Your task to perform on an android device: Open location settings Image 0: 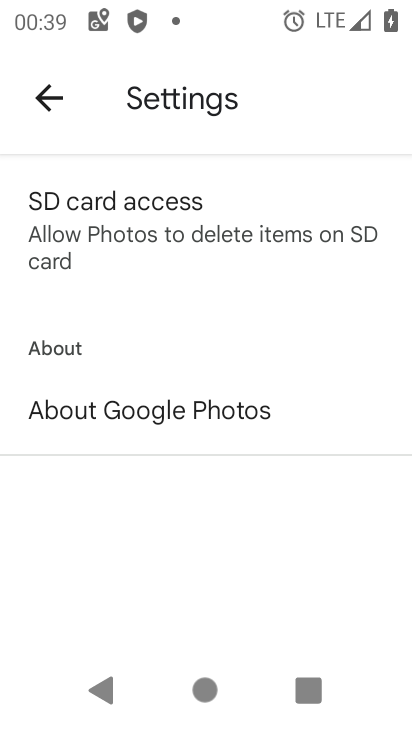
Step 0: press home button
Your task to perform on an android device: Open location settings Image 1: 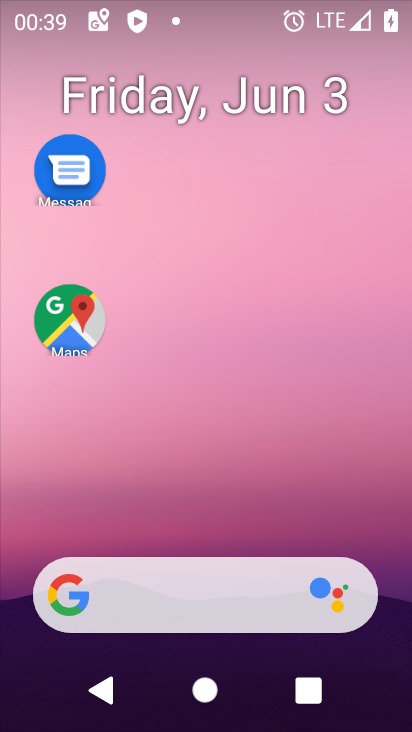
Step 1: drag from (227, 550) to (213, 170)
Your task to perform on an android device: Open location settings Image 2: 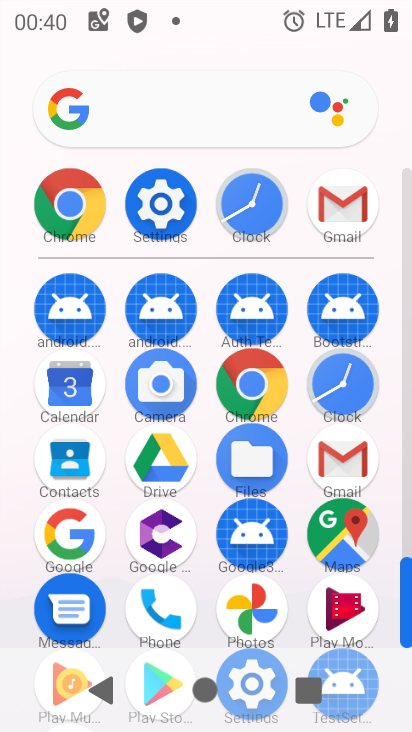
Step 2: click (185, 242)
Your task to perform on an android device: Open location settings Image 3: 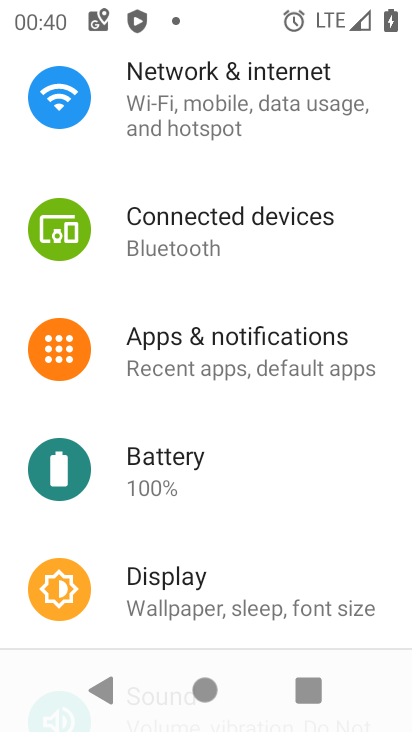
Step 3: drag from (326, 580) to (398, 155)
Your task to perform on an android device: Open location settings Image 4: 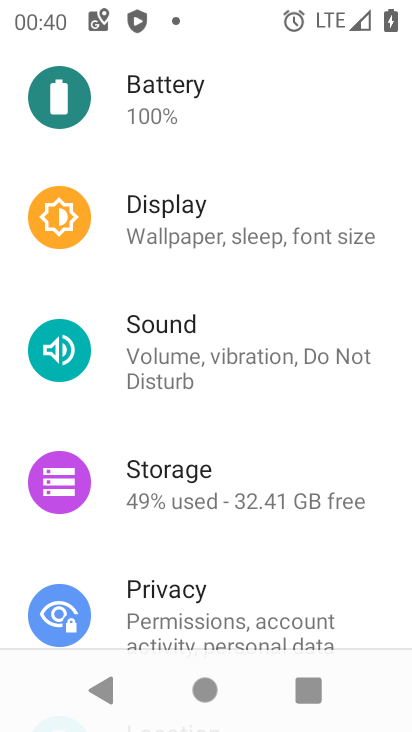
Step 4: drag from (256, 540) to (297, 291)
Your task to perform on an android device: Open location settings Image 5: 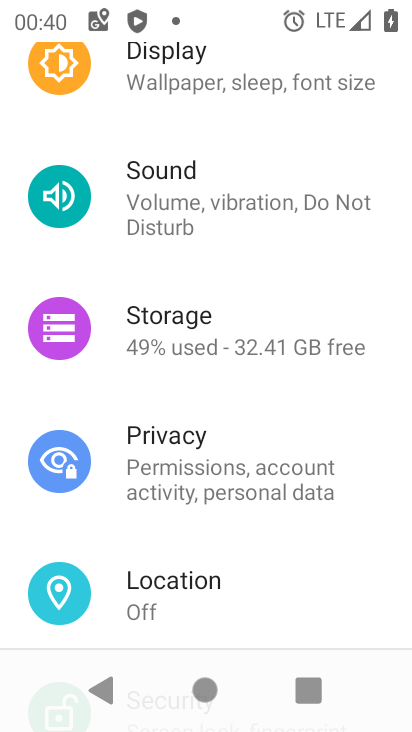
Step 5: click (212, 573)
Your task to perform on an android device: Open location settings Image 6: 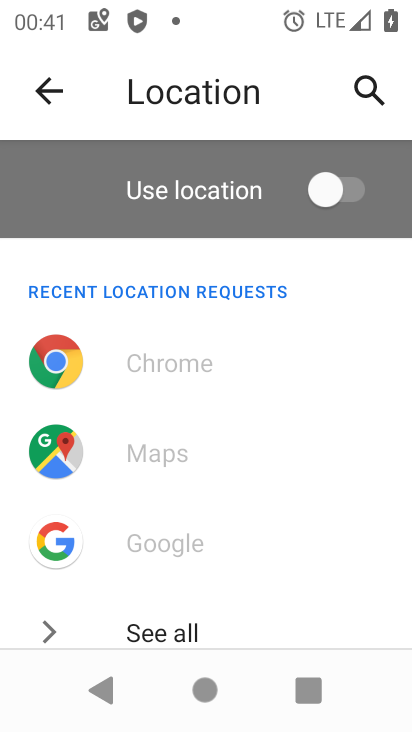
Step 6: task complete